Your task to perform on an android device: turn notification dots on Image 0: 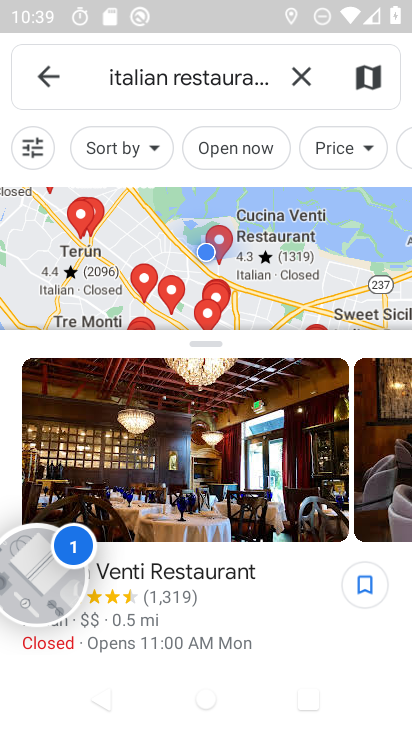
Step 0: press home button
Your task to perform on an android device: turn notification dots on Image 1: 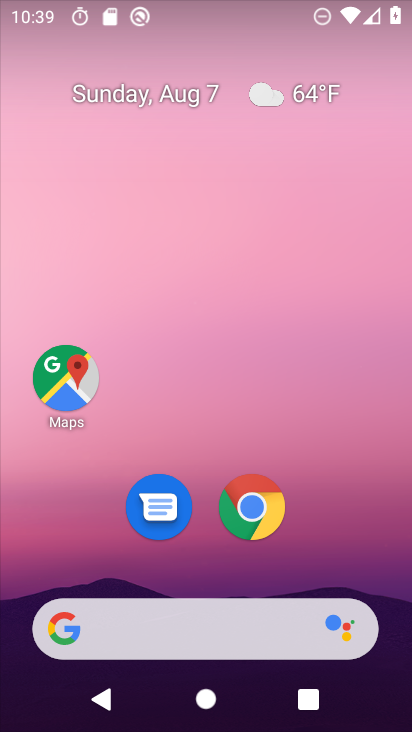
Step 1: drag from (345, 525) to (322, 184)
Your task to perform on an android device: turn notification dots on Image 2: 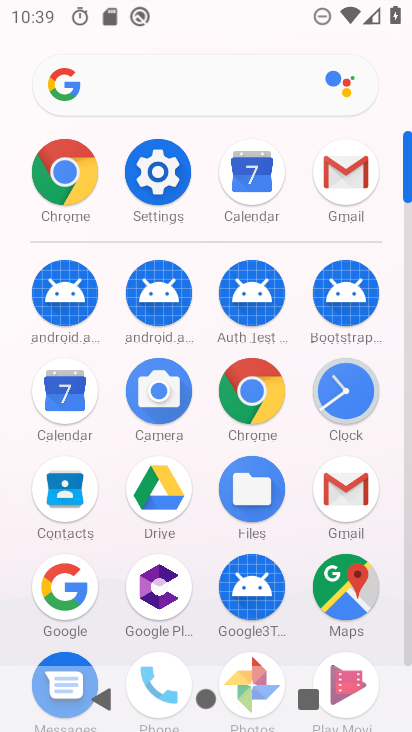
Step 2: click (147, 178)
Your task to perform on an android device: turn notification dots on Image 3: 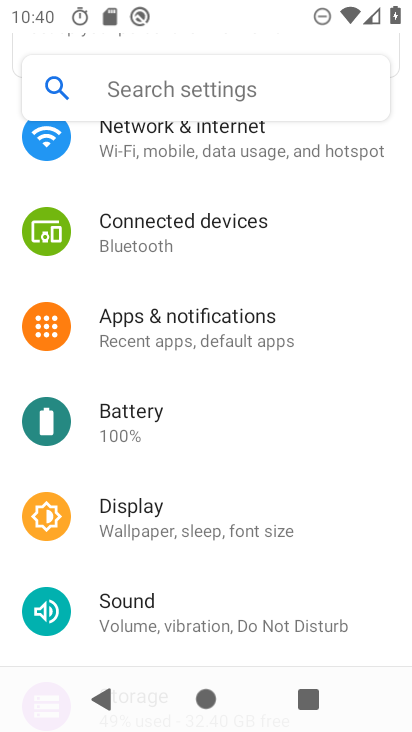
Step 3: click (213, 320)
Your task to perform on an android device: turn notification dots on Image 4: 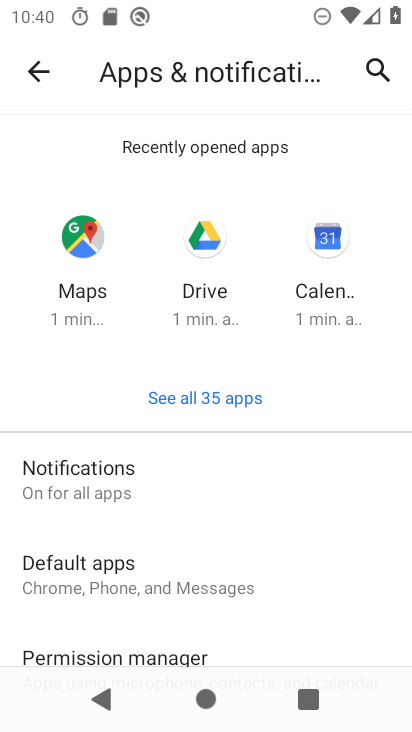
Step 4: click (131, 460)
Your task to perform on an android device: turn notification dots on Image 5: 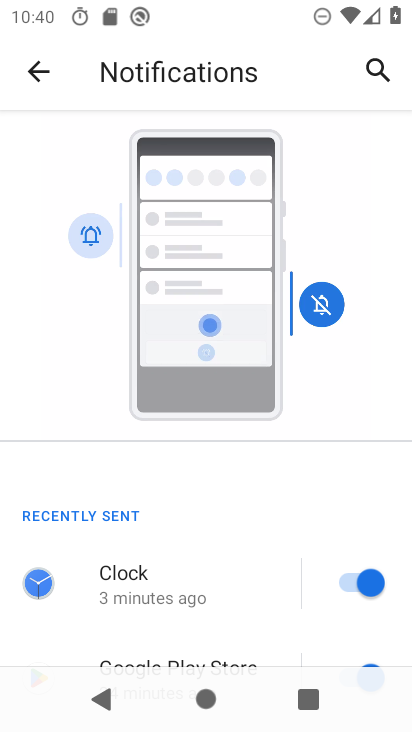
Step 5: drag from (253, 496) to (294, 0)
Your task to perform on an android device: turn notification dots on Image 6: 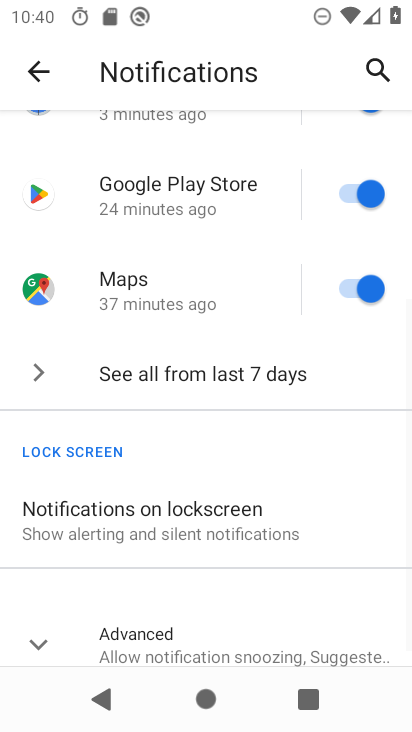
Step 6: drag from (197, 568) to (271, 127)
Your task to perform on an android device: turn notification dots on Image 7: 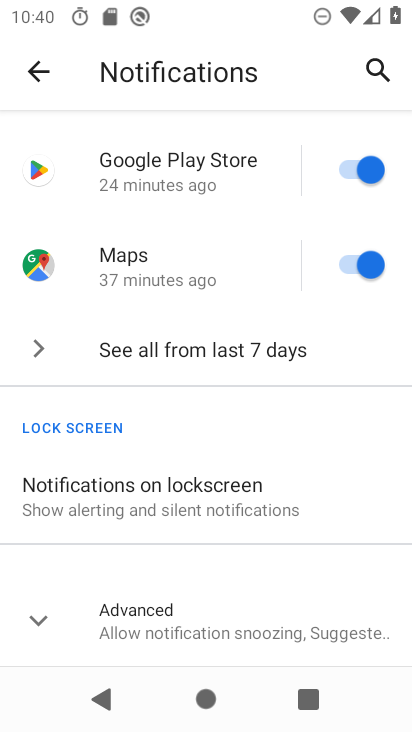
Step 7: click (122, 624)
Your task to perform on an android device: turn notification dots on Image 8: 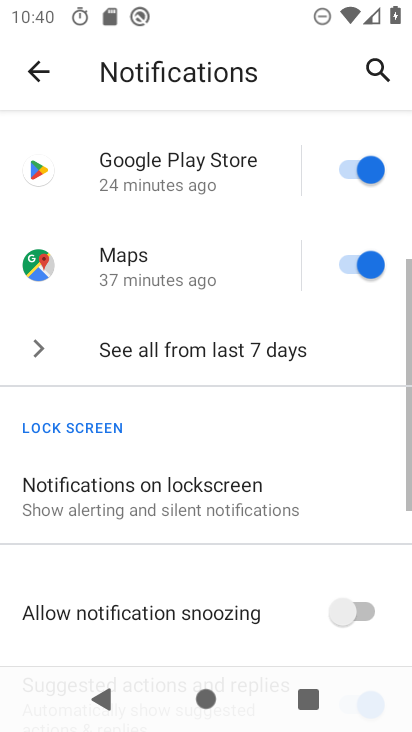
Step 8: task complete